Your task to perform on an android device: Open battery settings Image 0: 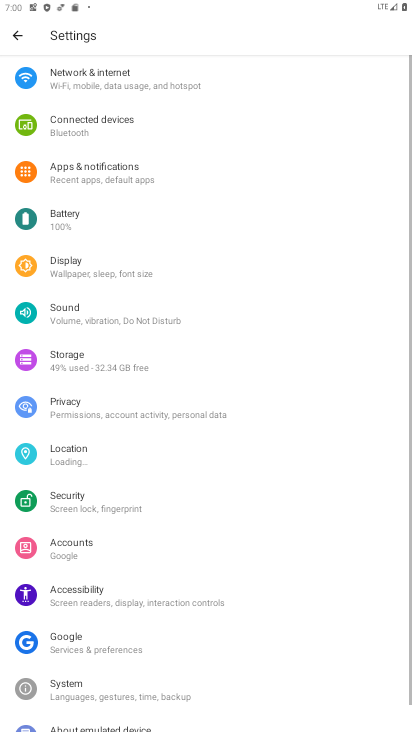
Step 0: press home button
Your task to perform on an android device: Open battery settings Image 1: 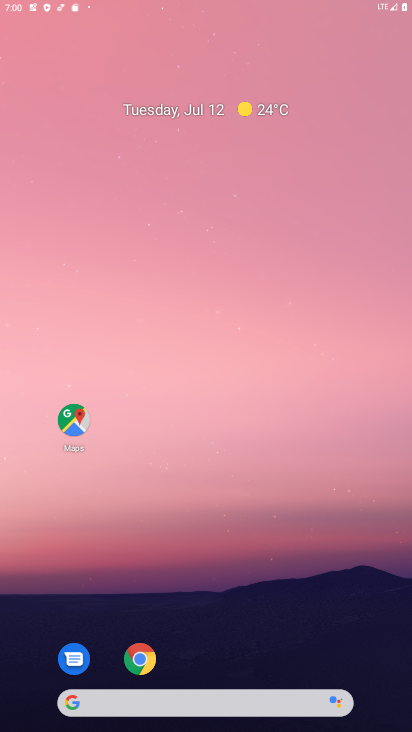
Step 1: drag from (384, 679) to (239, 21)
Your task to perform on an android device: Open battery settings Image 2: 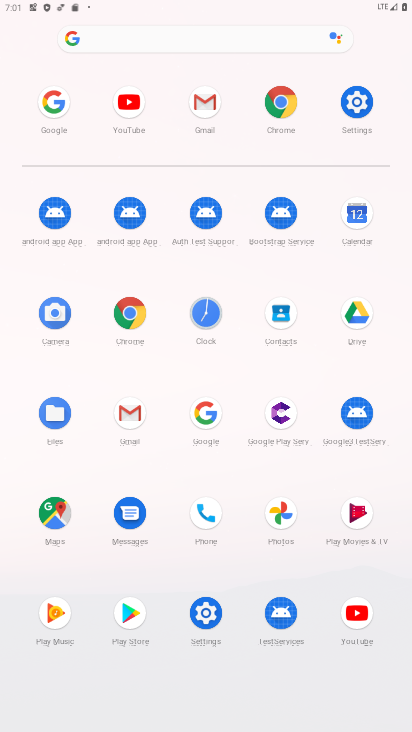
Step 2: click (201, 624)
Your task to perform on an android device: Open battery settings Image 3: 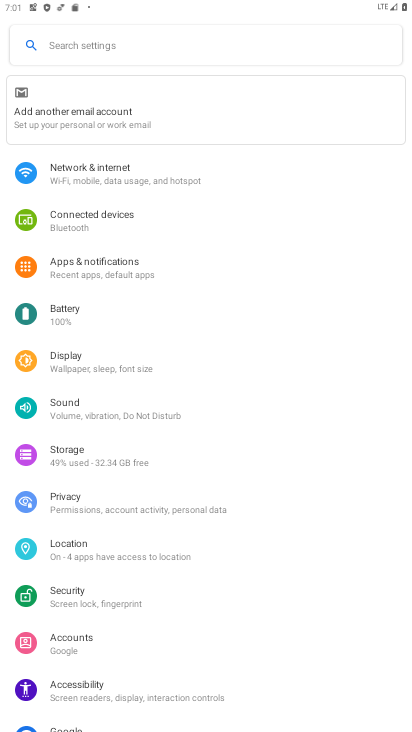
Step 3: click (65, 319)
Your task to perform on an android device: Open battery settings Image 4: 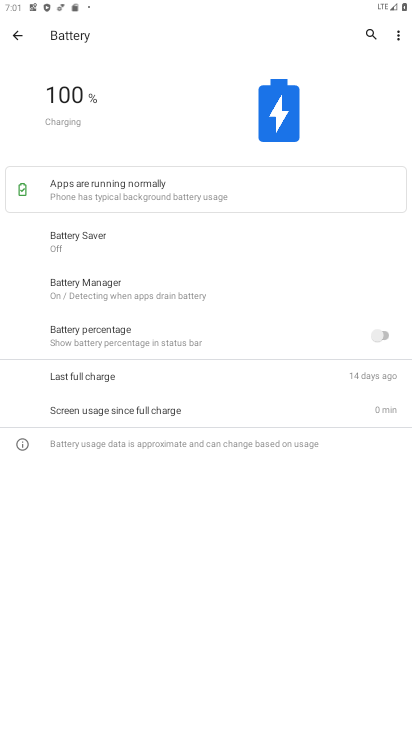
Step 4: task complete